Your task to perform on an android device: Go to internet settings Image 0: 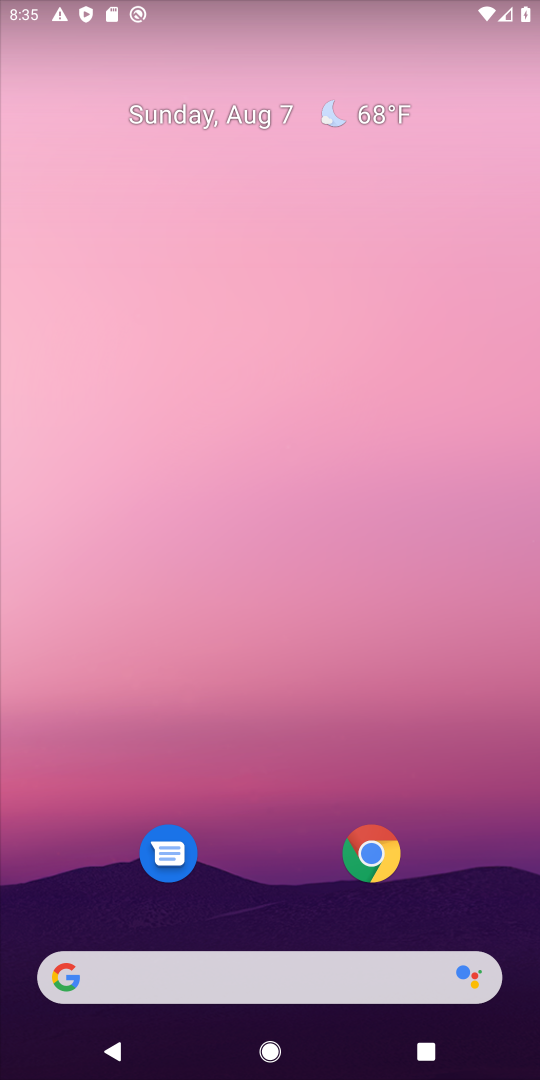
Step 0: drag from (195, 947) to (328, 246)
Your task to perform on an android device: Go to internet settings Image 1: 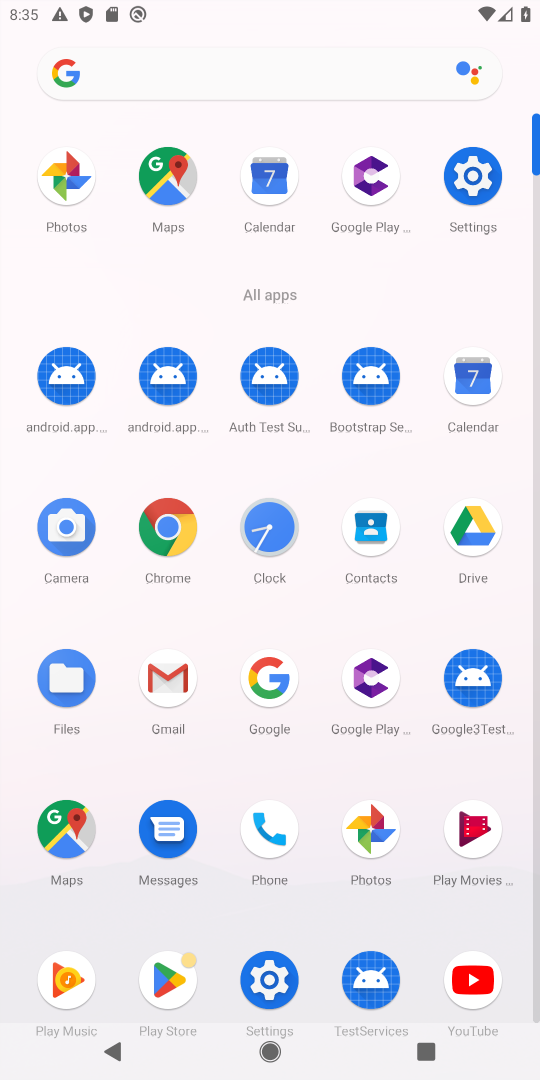
Step 1: click (483, 171)
Your task to perform on an android device: Go to internet settings Image 2: 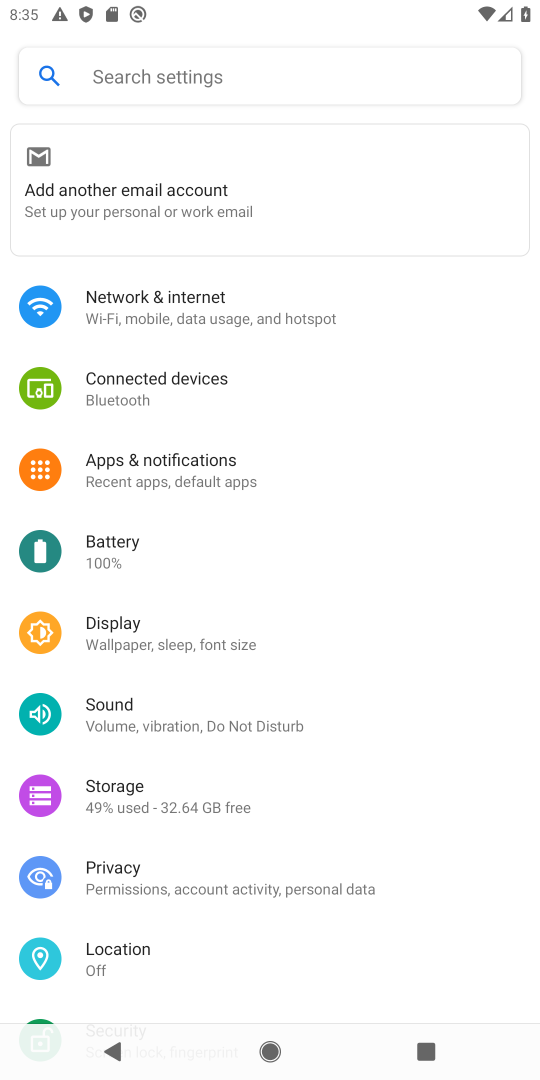
Step 2: click (196, 305)
Your task to perform on an android device: Go to internet settings Image 3: 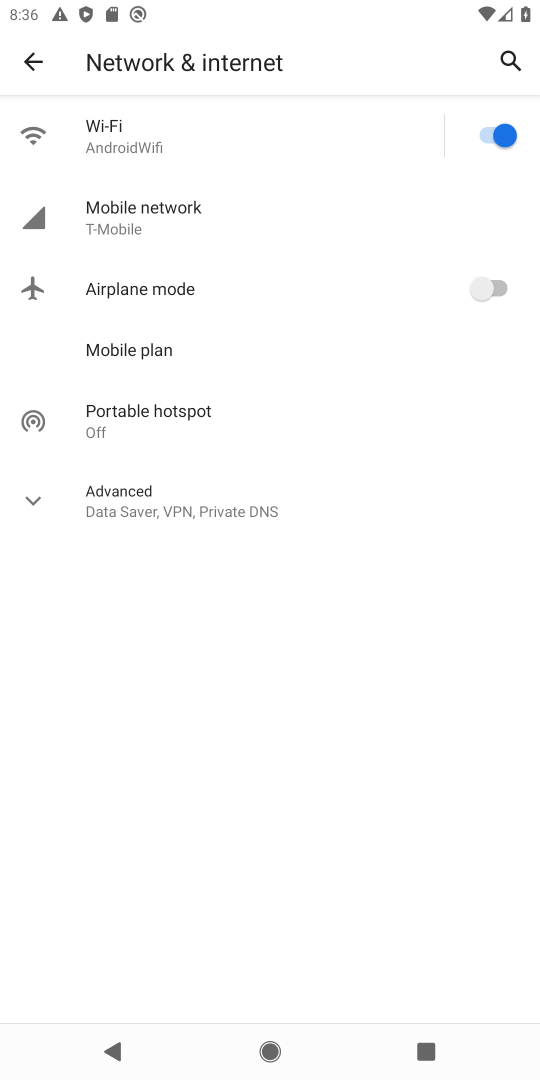
Step 3: task complete